Your task to perform on an android device: Search for a new water heater on Home Depot Image 0: 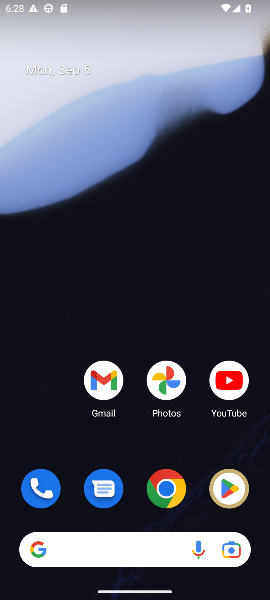
Step 0: press home button
Your task to perform on an android device: Search for a new water heater on Home Depot Image 1: 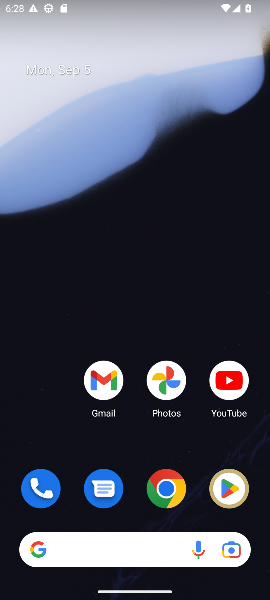
Step 1: click (162, 494)
Your task to perform on an android device: Search for a new water heater on Home Depot Image 2: 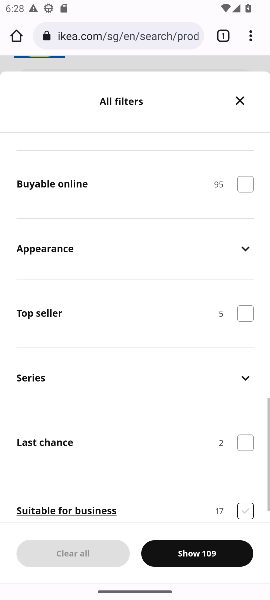
Step 2: press home button
Your task to perform on an android device: Search for a new water heater on Home Depot Image 3: 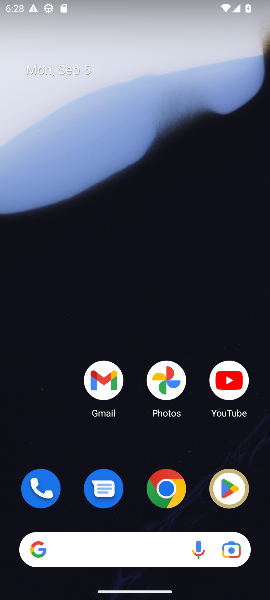
Step 3: click (167, 499)
Your task to perform on an android device: Search for a new water heater on Home Depot Image 4: 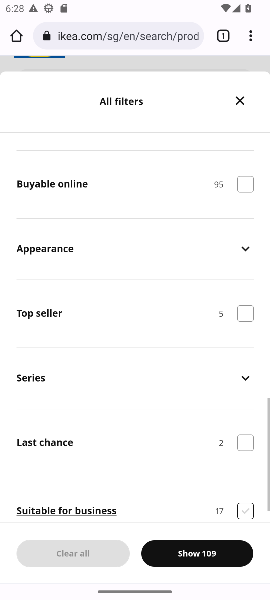
Step 4: click (221, 33)
Your task to perform on an android device: Search for a new water heater on Home Depot Image 5: 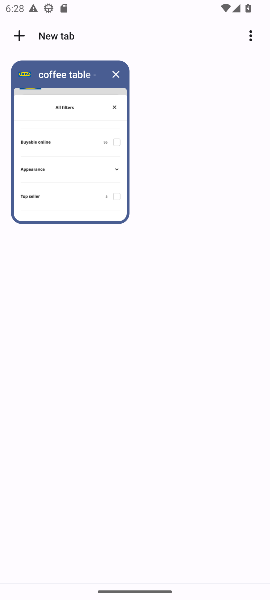
Step 5: click (121, 80)
Your task to perform on an android device: Search for a new water heater on Home Depot Image 6: 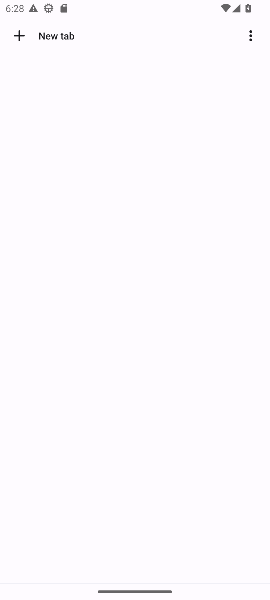
Step 6: click (21, 36)
Your task to perform on an android device: Search for a new water heater on Home Depot Image 7: 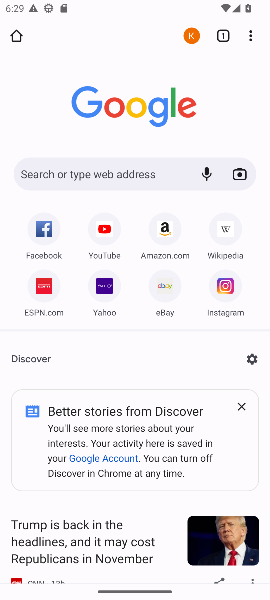
Step 7: click (92, 170)
Your task to perform on an android device: Search for a new water heater on Home Depot Image 8: 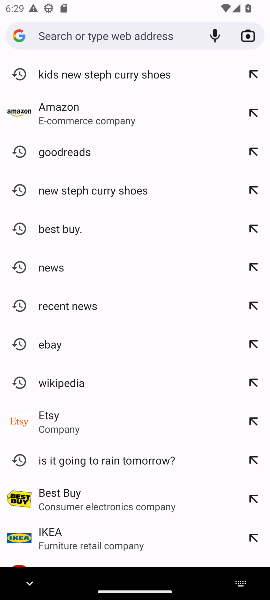
Step 8: click (119, 36)
Your task to perform on an android device: Search for a new water heater on Home Depot Image 9: 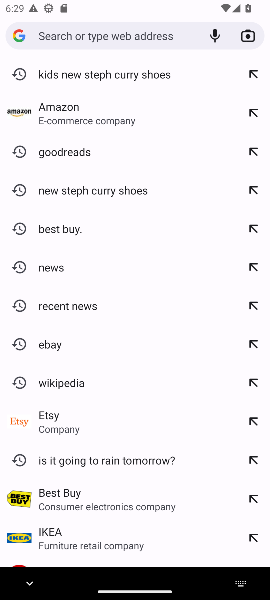
Step 9: type "home depot"
Your task to perform on an android device: Search for a new water heater on Home Depot Image 10: 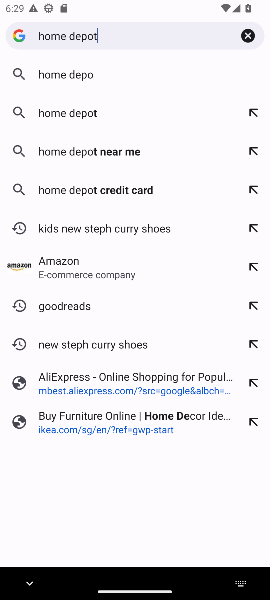
Step 10: type ""
Your task to perform on an android device: Search for a new water heater on Home Depot Image 11: 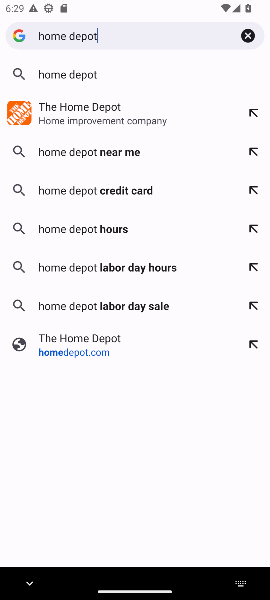
Step 11: click (127, 82)
Your task to perform on an android device: Search for a new water heater on Home Depot Image 12: 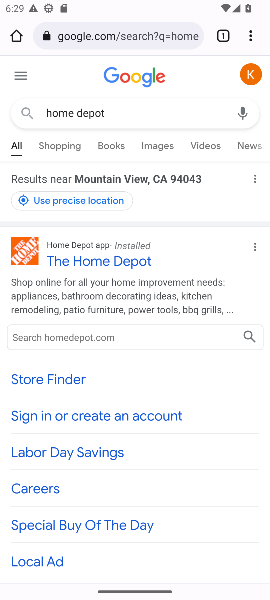
Step 12: click (122, 261)
Your task to perform on an android device: Search for a new water heater on Home Depot Image 13: 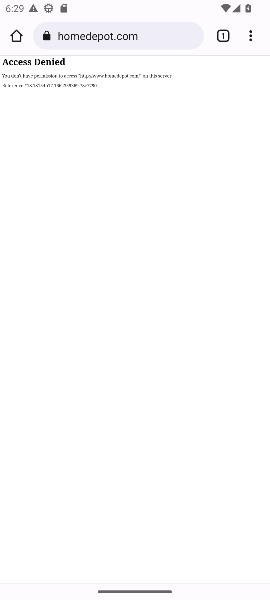
Step 13: task complete